Your task to perform on an android device: turn on priority inbox in the gmail app Image 0: 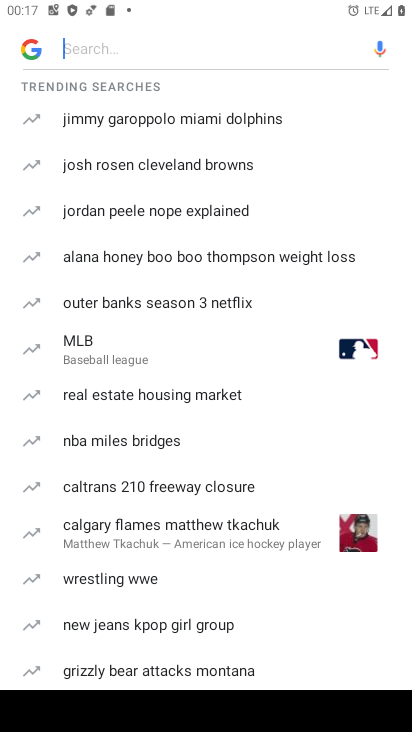
Step 0: press home button
Your task to perform on an android device: turn on priority inbox in the gmail app Image 1: 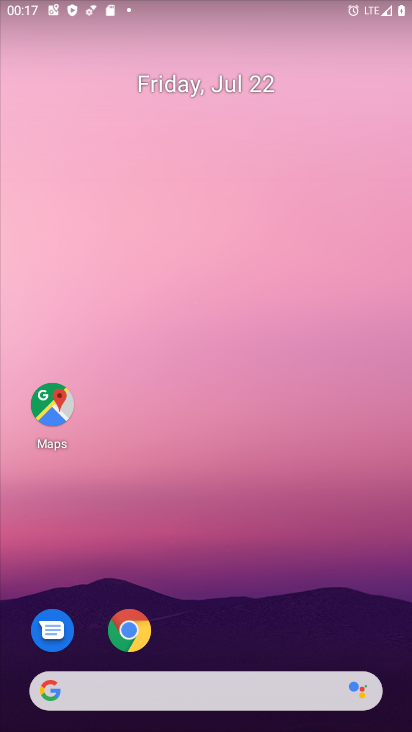
Step 1: drag from (209, 603) to (96, 46)
Your task to perform on an android device: turn on priority inbox in the gmail app Image 2: 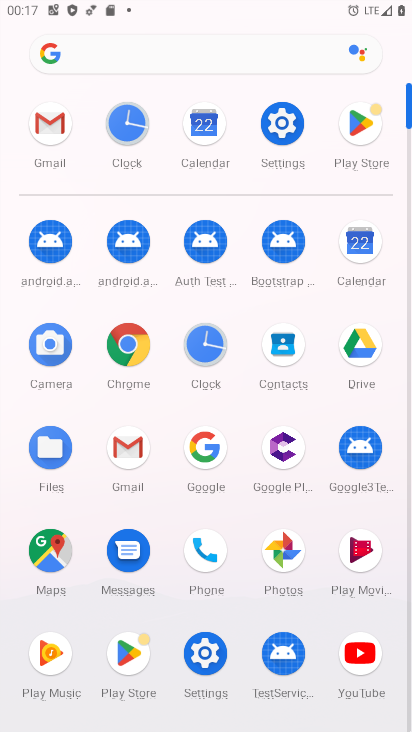
Step 2: click (43, 124)
Your task to perform on an android device: turn on priority inbox in the gmail app Image 3: 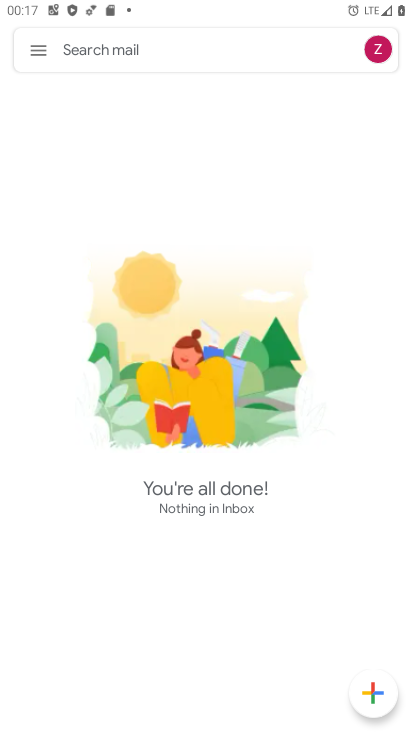
Step 3: click (37, 56)
Your task to perform on an android device: turn on priority inbox in the gmail app Image 4: 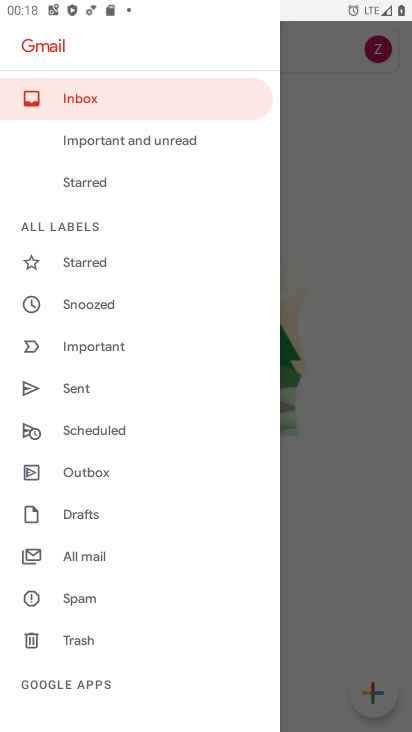
Step 4: drag from (106, 679) to (73, 334)
Your task to perform on an android device: turn on priority inbox in the gmail app Image 5: 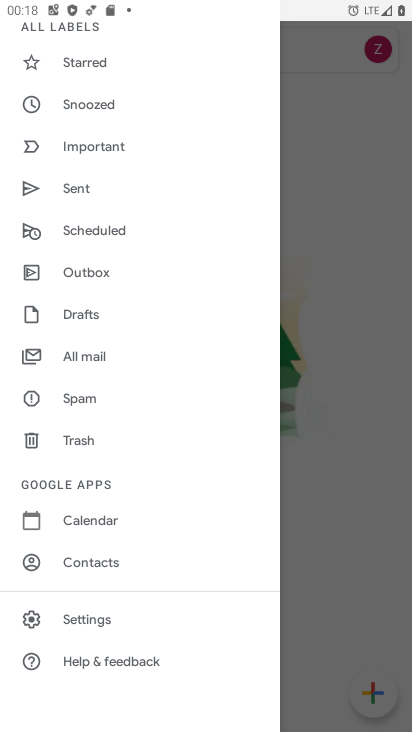
Step 5: click (79, 617)
Your task to perform on an android device: turn on priority inbox in the gmail app Image 6: 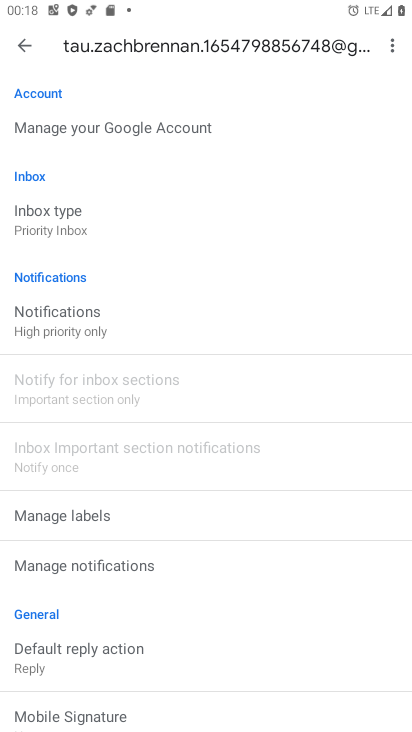
Step 6: click (54, 224)
Your task to perform on an android device: turn on priority inbox in the gmail app Image 7: 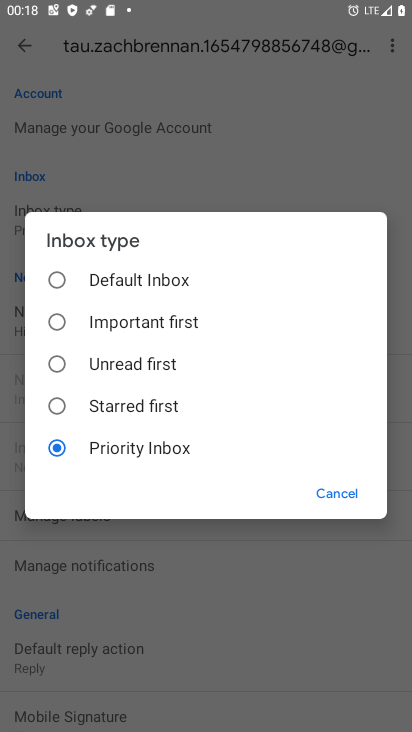
Step 7: task complete